Your task to perform on an android device: Open Android settings Image 0: 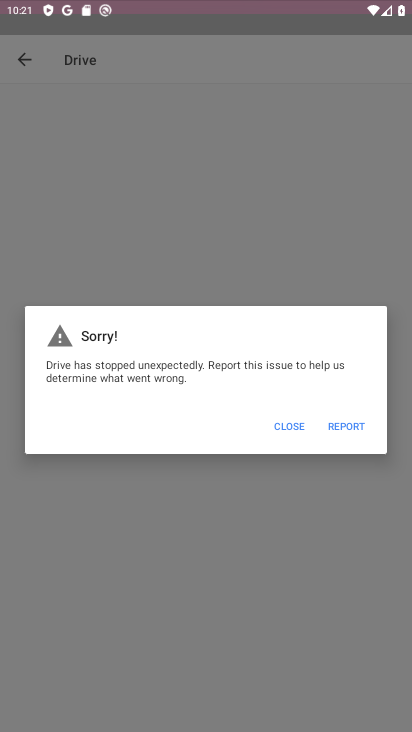
Step 0: press home button
Your task to perform on an android device: Open Android settings Image 1: 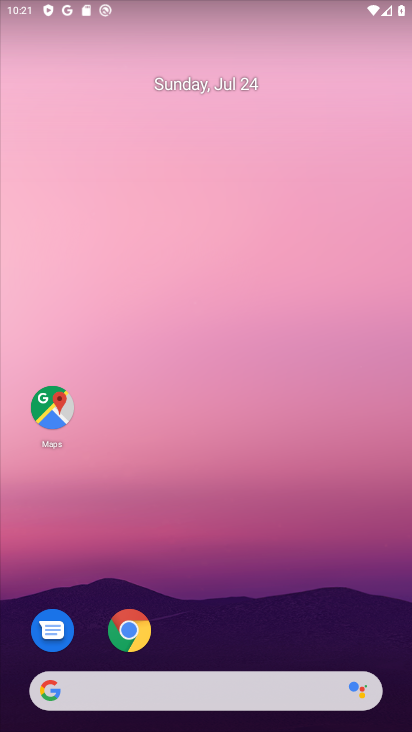
Step 1: drag from (277, 614) to (303, 89)
Your task to perform on an android device: Open Android settings Image 2: 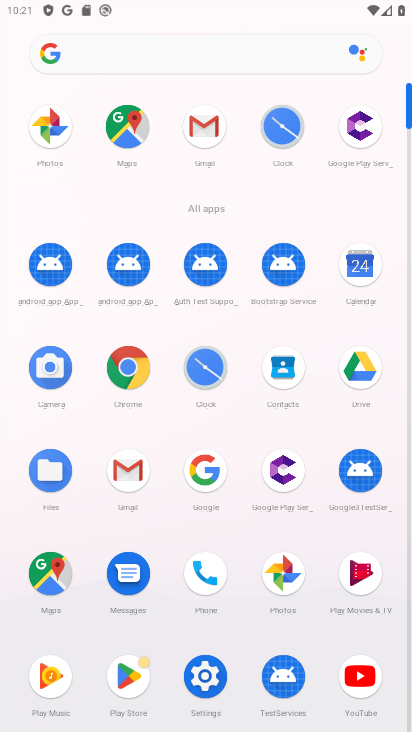
Step 2: click (205, 671)
Your task to perform on an android device: Open Android settings Image 3: 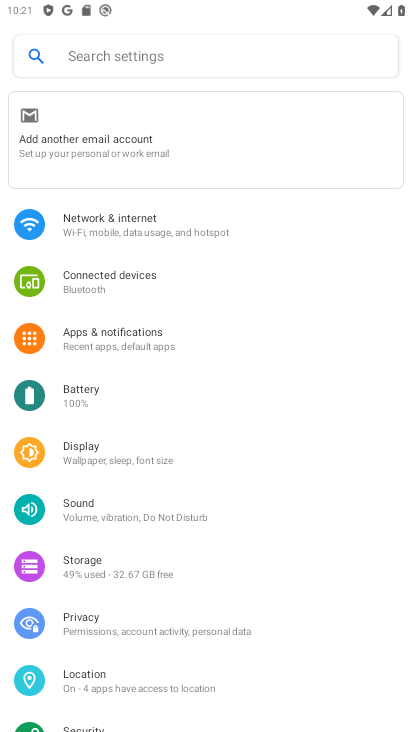
Step 3: task complete